Your task to perform on an android device: Open Youtube and go to "Your channel" Image 0: 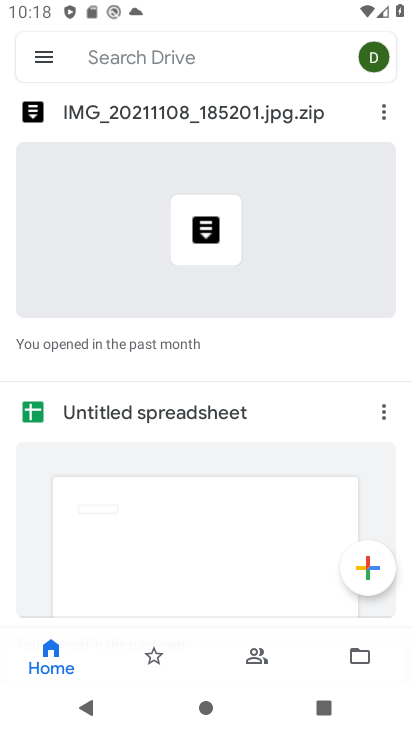
Step 0: press home button
Your task to perform on an android device: Open Youtube and go to "Your channel" Image 1: 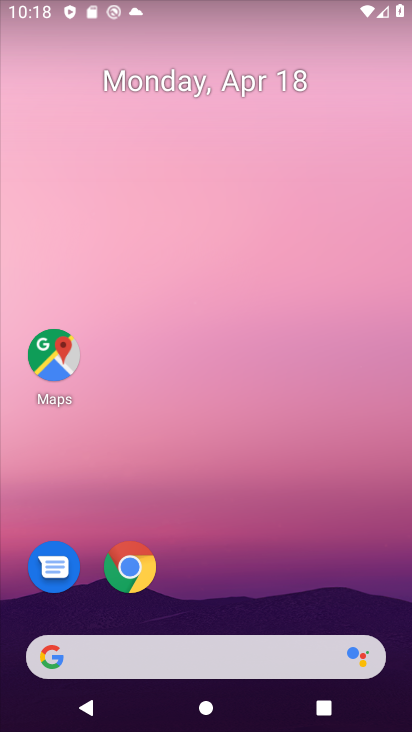
Step 1: drag from (212, 596) to (257, 41)
Your task to perform on an android device: Open Youtube and go to "Your channel" Image 2: 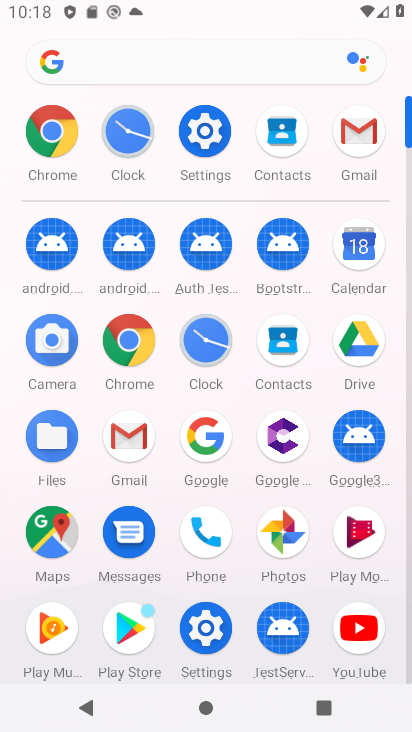
Step 2: click (363, 639)
Your task to perform on an android device: Open Youtube and go to "Your channel" Image 3: 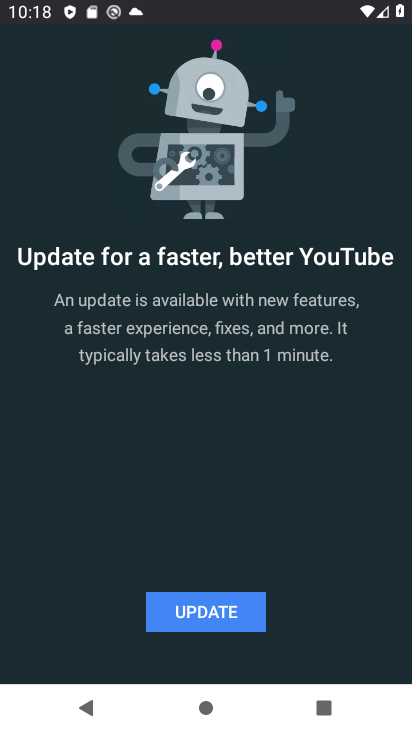
Step 3: click (186, 611)
Your task to perform on an android device: Open Youtube and go to "Your channel" Image 4: 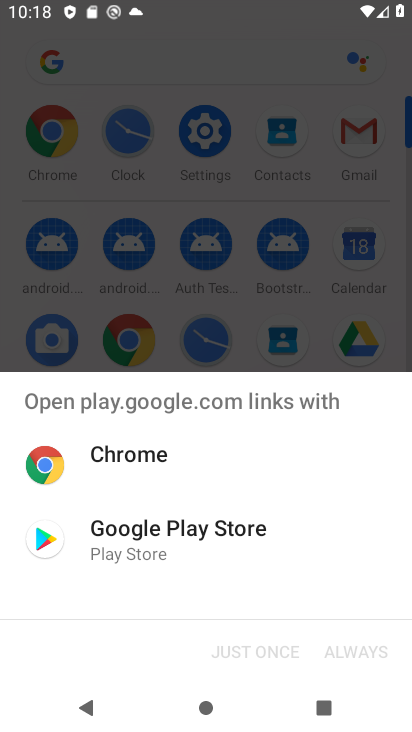
Step 4: click (186, 542)
Your task to perform on an android device: Open Youtube and go to "Your channel" Image 5: 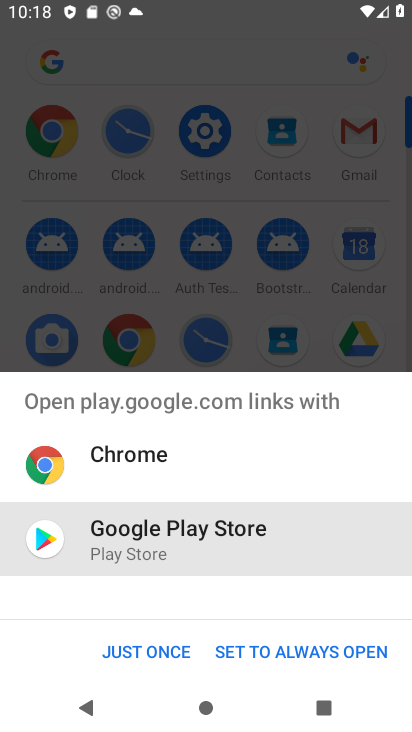
Step 5: click (131, 652)
Your task to perform on an android device: Open Youtube and go to "Your channel" Image 6: 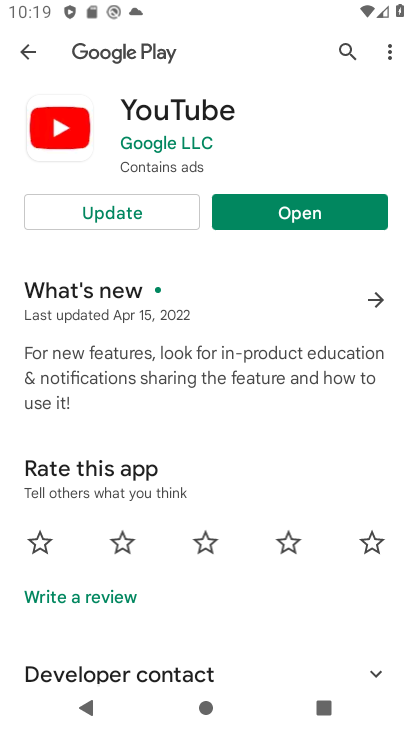
Step 6: click (154, 209)
Your task to perform on an android device: Open Youtube and go to "Your channel" Image 7: 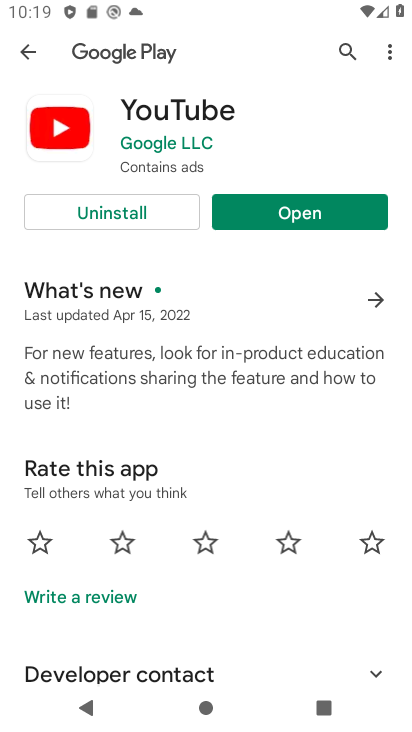
Step 7: click (323, 217)
Your task to perform on an android device: Open Youtube and go to "Your channel" Image 8: 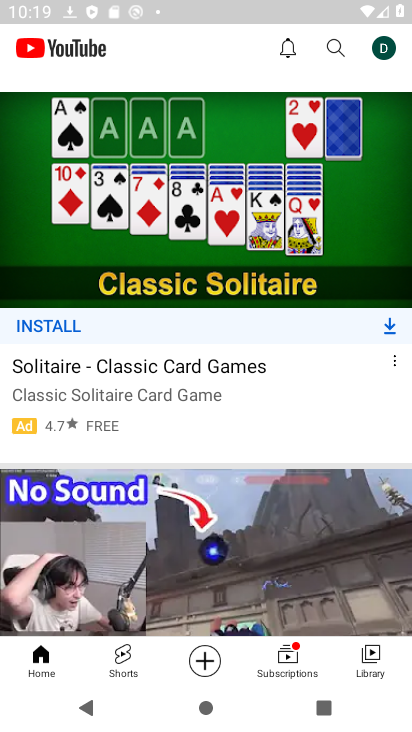
Step 8: click (374, 53)
Your task to perform on an android device: Open Youtube and go to "Your channel" Image 9: 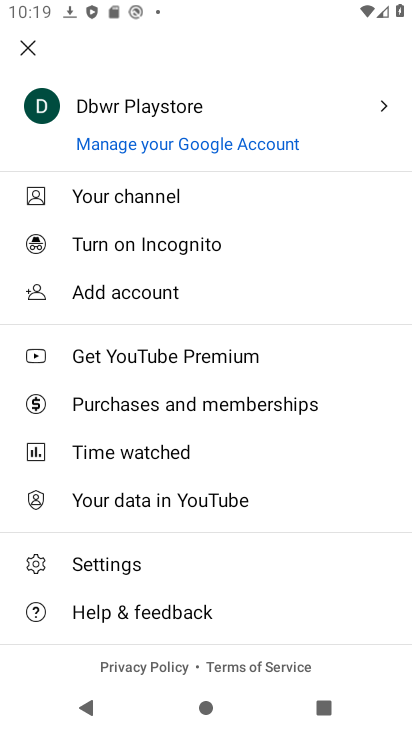
Step 9: click (112, 186)
Your task to perform on an android device: Open Youtube and go to "Your channel" Image 10: 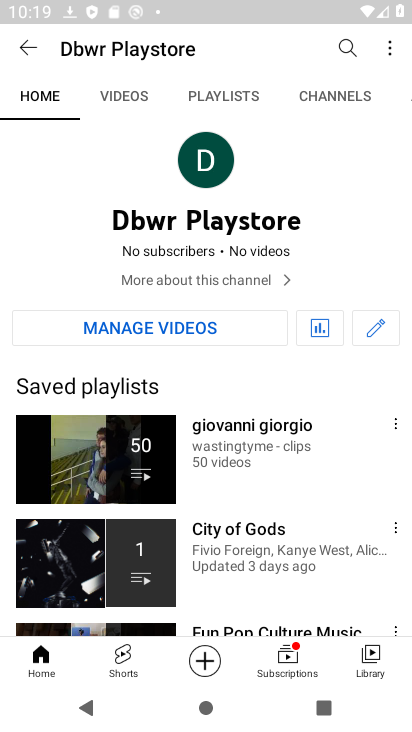
Step 10: task complete